Your task to perform on an android device: Clear the cart on ebay. Search for "amazon basics triple a" on ebay, select the first entry, and add it to the cart. Image 0: 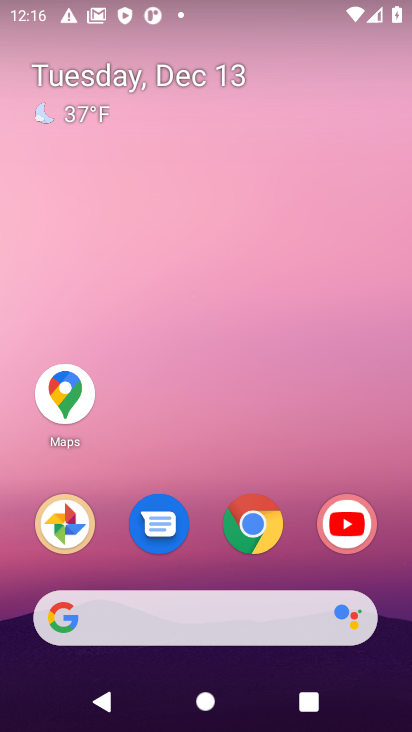
Step 0: click (253, 527)
Your task to perform on an android device: Clear the cart on ebay. Search for "amazon basics triple a" on ebay, select the first entry, and add it to the cart. Image 1: 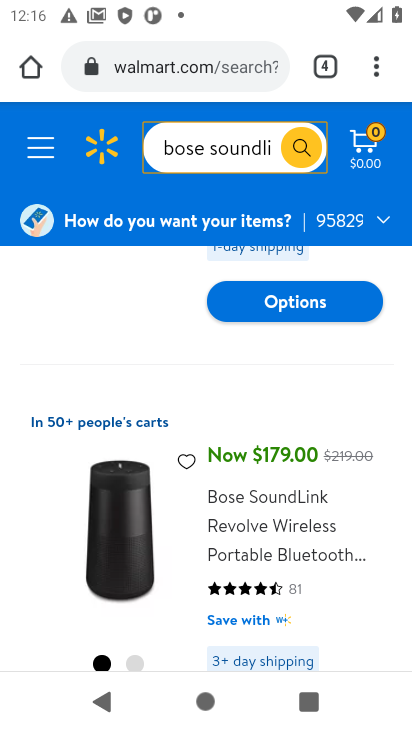
Step 1: click (179, 70)
Your task to perform on an android device: Clear the cart on ebay. Search for "amazon basics triple a" on ebay, select the first entry, and add it to the cart. Image 2: 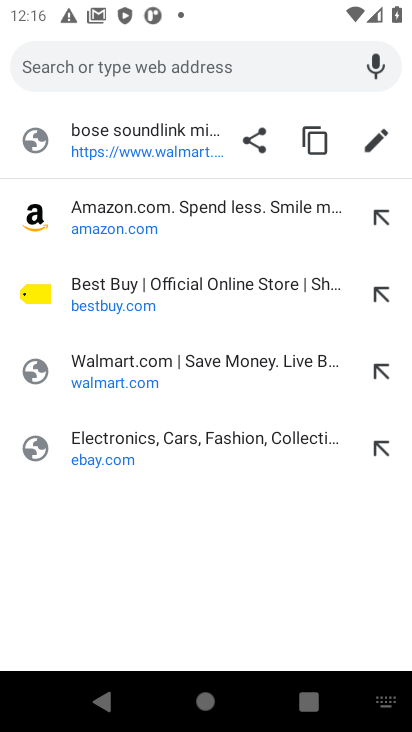
Step 2: click (101, 454)
Your task to perform on an android device: Clear the cart on ebay. Search for "amazon basics triple a" on ebay, select the first entry, and add it to the cart. Image 3: 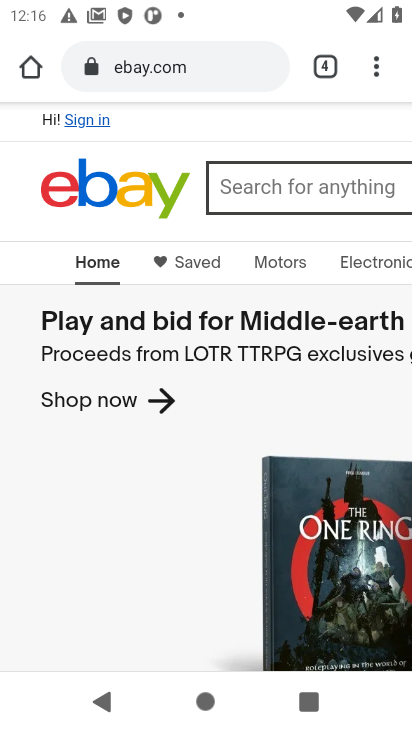
Step 3: drag from (335, 150) to (0, 150)
Your task to perform on an android device: Clear the cart on ebay. Search for "amazon basics triple a" on ebay, select the first entry, and add it to the cart. Image 4: 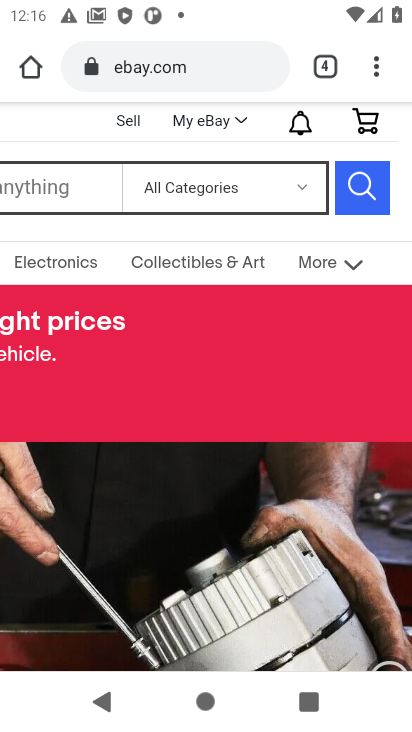
Step 4: click (364, 122)
Your task to perform on an android device: Clear the cart on ebay. Search for "amazon basics triple a" on ebay, select the first entry, and add it to the cart. Image 5: 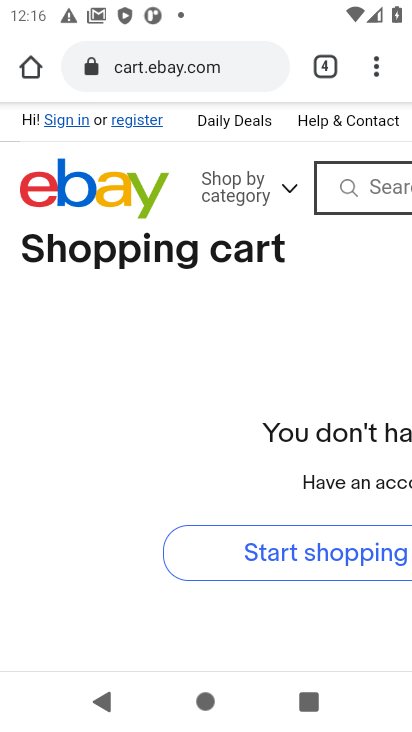
Step 5: click (343, 187)
Your task to perform on an android device: Clear the cart on ebay. Search for "amazon basics triple a" on ebay, select the first entry, and add it to the cart. Image 6: 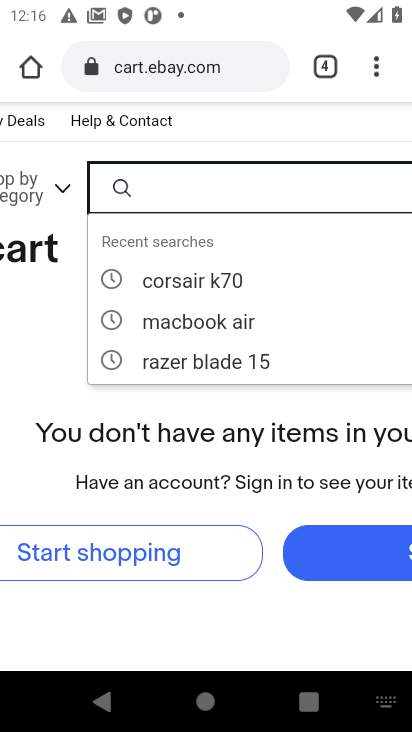
Step 6: type "amazon basics triple a"
Your task to perform on an android device: Clear the cart on ebay. Search for "amazon basics triple a" on ebay, select the first entry, and add it to the cart. Image 7: 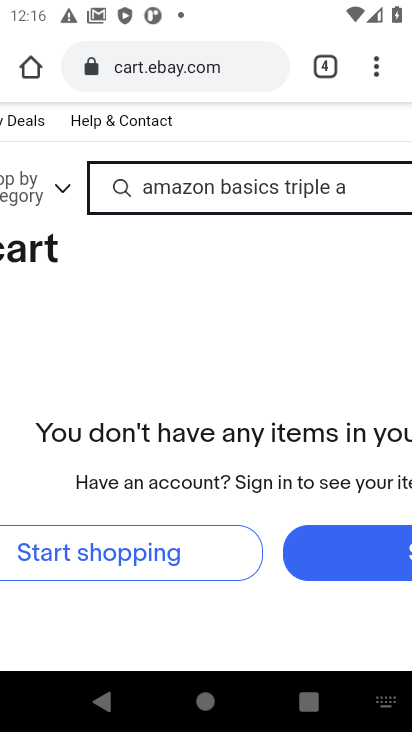
Step 7: drag from (283, 261) to (2, 212)
Your task to perform on an android device: Clear the cart on ebay. Search for "amazon basics triple a" on ebay, select the first entry, and add it to the cart. Image 8: 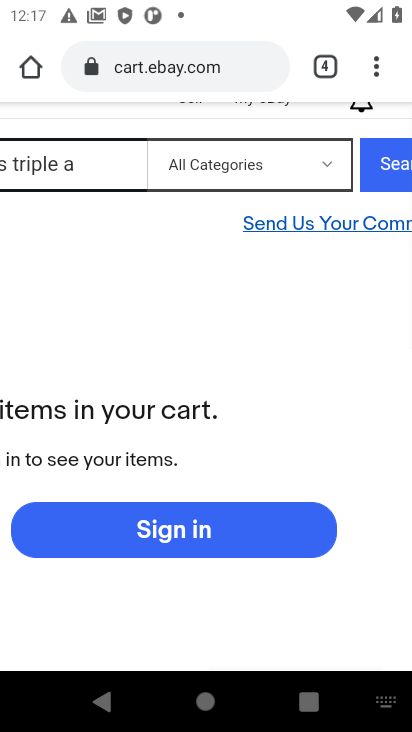
Step 8: click (389, 194)
Your task to perform on an android device: Clear the cart on ebay. Search for "amazon basics triple a" on ebay, select the first entry, and add it to the cart. Image 9: 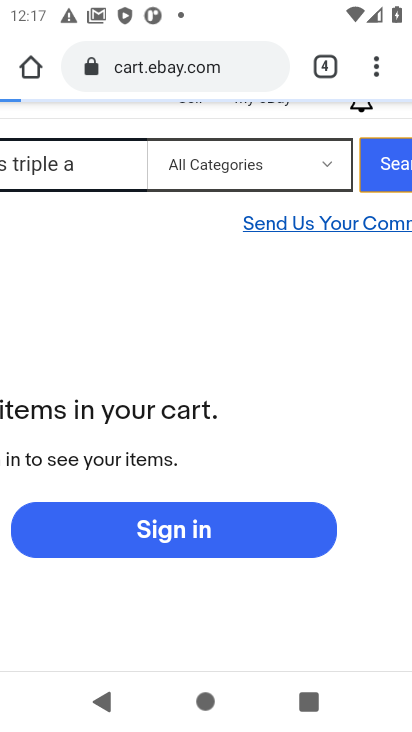
Step 9: click (395, 181)
Your task to perform on an android device: Clear the cart on ebay. Search for "amazon basics triple a" on ebay, select the first entry, and add it to the cart. Image 10: 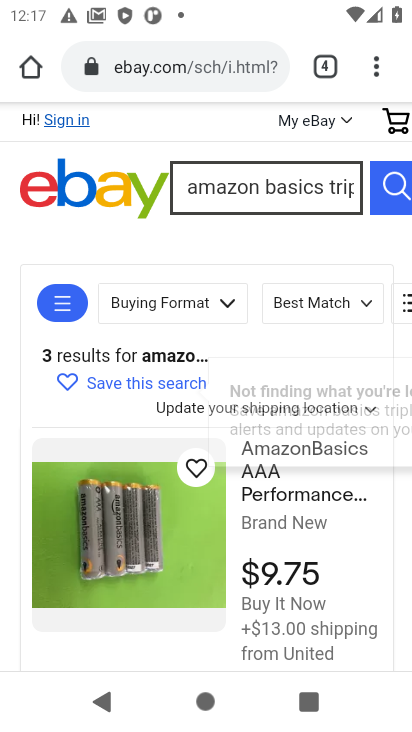
Step 10: drag from (249, 524) to (243, 370)
Your task to perform on an android device: Clear the cart on ebay. Search for "amazon basics triple a" on ebay, select the first entry, and add it to the cart. Image 11: 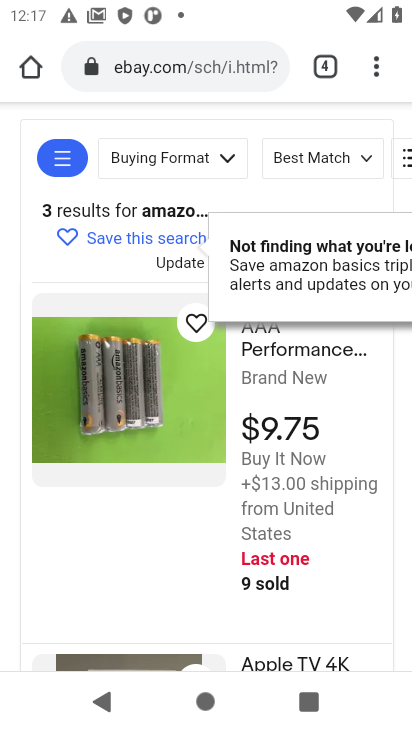
Step 11: click (283, 378)
Your task to perform on an android device: Clear the cart on ebay. Search for "amazon basics triple a" on ebay, select the first entry, and add it to the cart. Image 12: 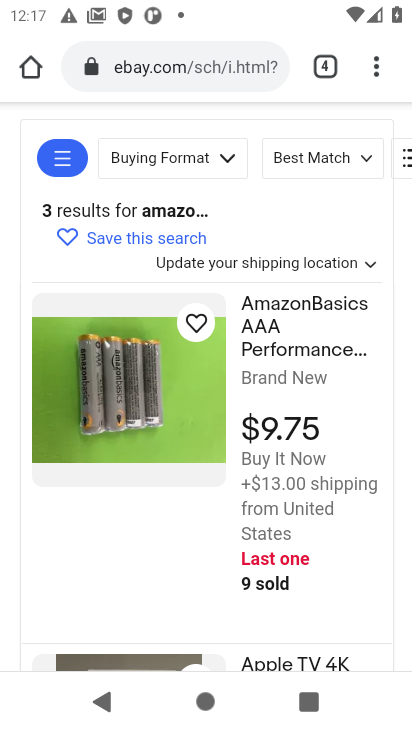
Step 12: click (283, 351)
Your task to perform on an android device: Clear the cart on ebay. Search for "amazon basics triple a" on ebay, select the first entry, and add it to the cart. Image 13: 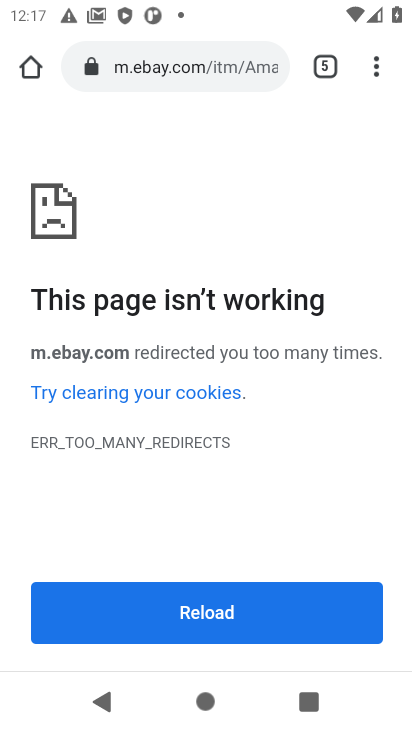
Step 13: task complete